Your task to perform on an android device: Search for vegetarian restaurants on Maps Image 0: 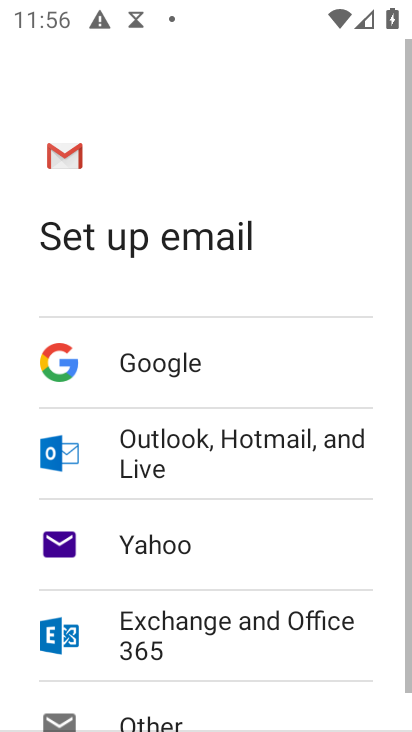
Step 0: press home button
Your task to perform on an android device: Search for vegetarian restaurants on Maps Image 1: 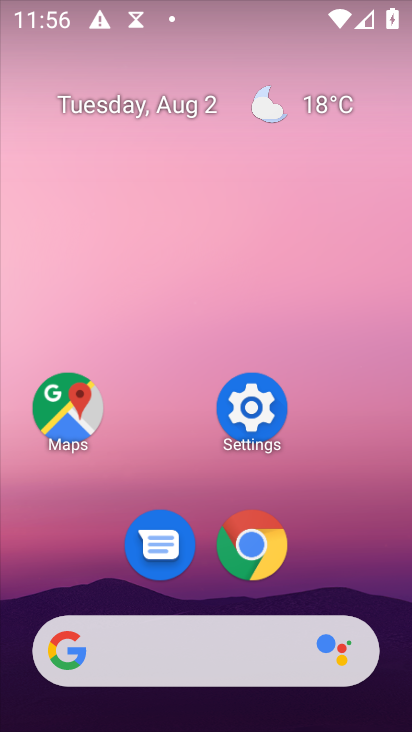
Step 1: click (60, 412)
Your task to perform on an android device: Search for vegetarian restaurants on Maps Image 2: 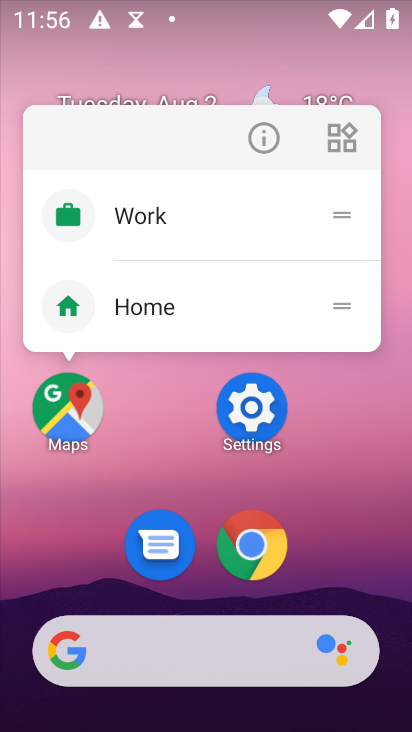
Step 2: click (60, 412)
Your task to perform on an android device: Search for vegetarian restaurants on Maps Image 3: 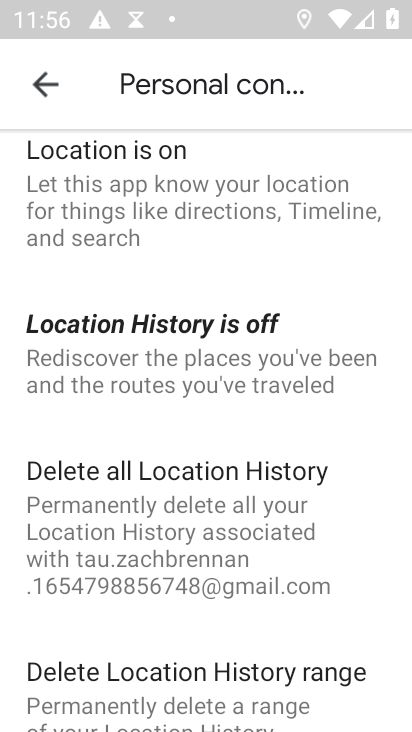
Step 3: click (48, 89)
Your task to perform on an android device: Search for vegetarian restaurants on Maps Image 4: 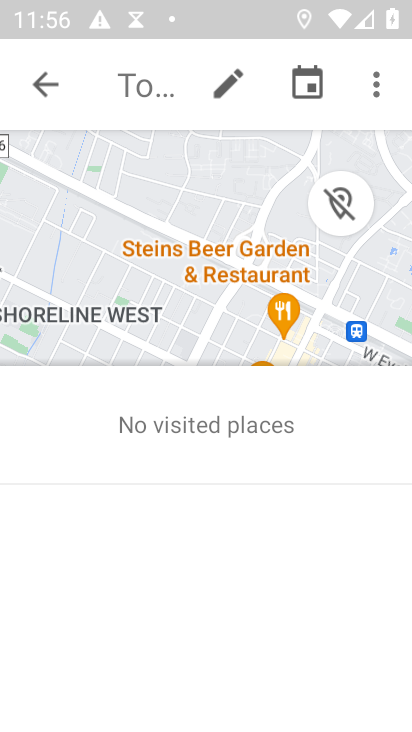
Step 4: click (45, 85)
Your task to perform on an android device: Search for vegetarian restaurants on Maps Image 5: 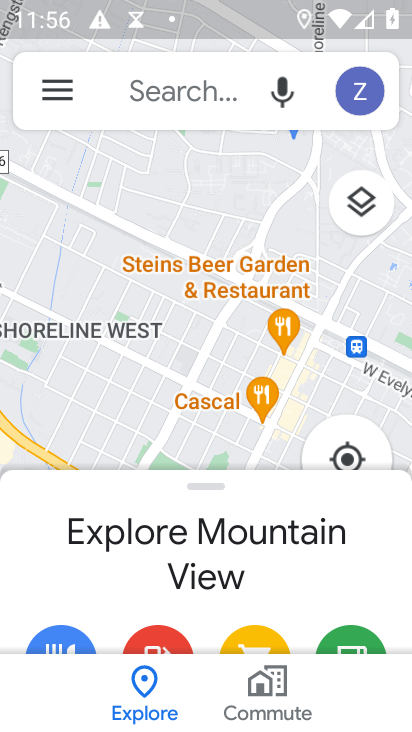
Step 5: click (167, 88)
Your task to perform on an android device: Search for vegetarian restaurants on Maps Image 6: 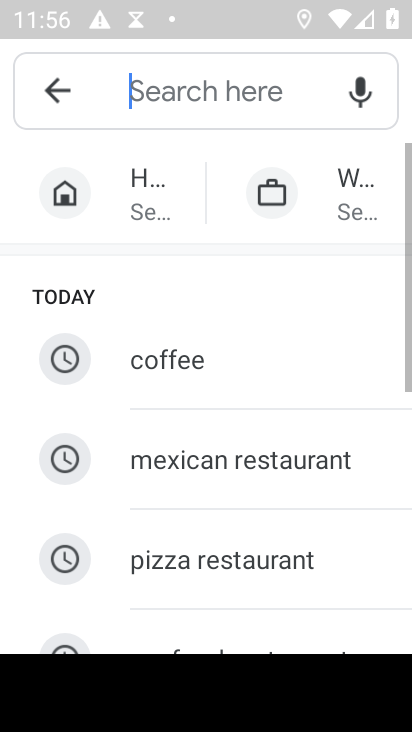
Step 6: drag from (227, 552) to (317, 98)
Your task to perform on an android device: Search for vegetarian restaurants on Maps Image 7: 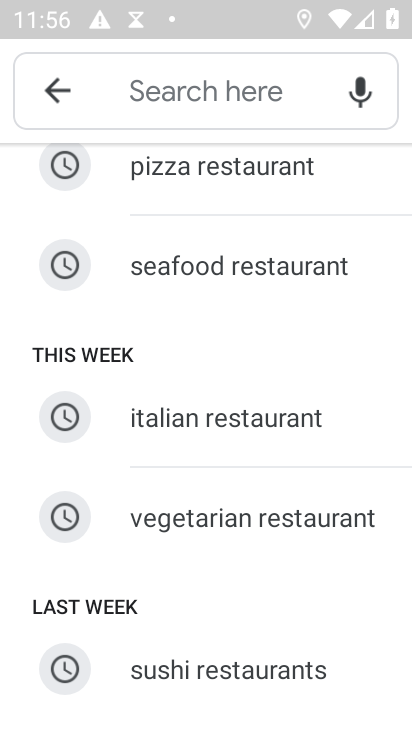
Step 7: click (205, 520)
Your task to perform on an android device: Search for vegetarian restaurants on Maps Image 8: 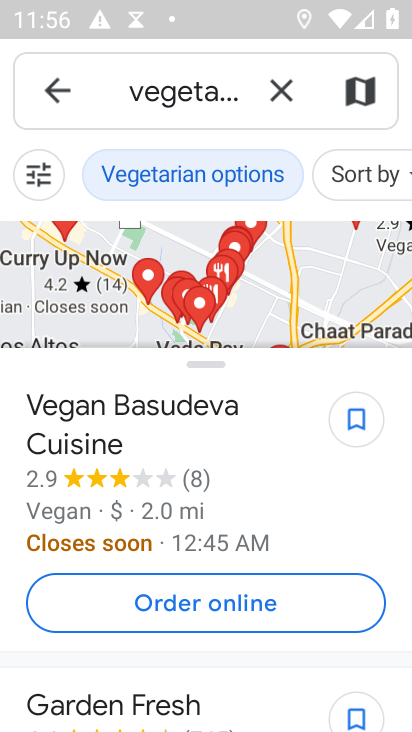
Step 8: task complete